Your task to perform on an android device: Open Yahoo.com Image 0: 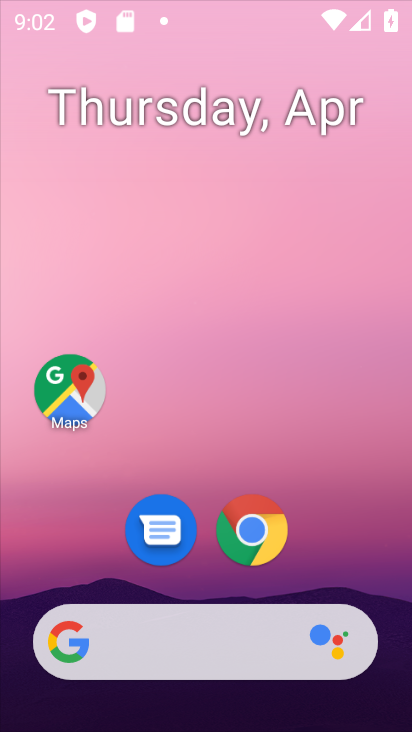
Step 0: drag from (358, 569) to (267, 91)
Your task to perform on an android device: Open Yahoo.com Image 1: 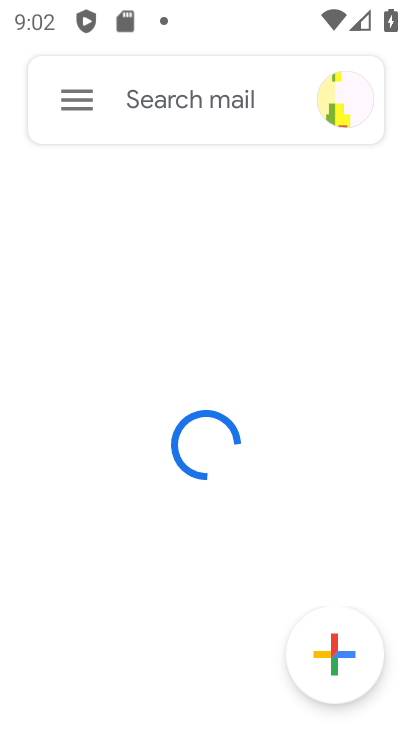
Step 1: press home button
Your task to perform on an android device: Open Yahoo.com Image 2: 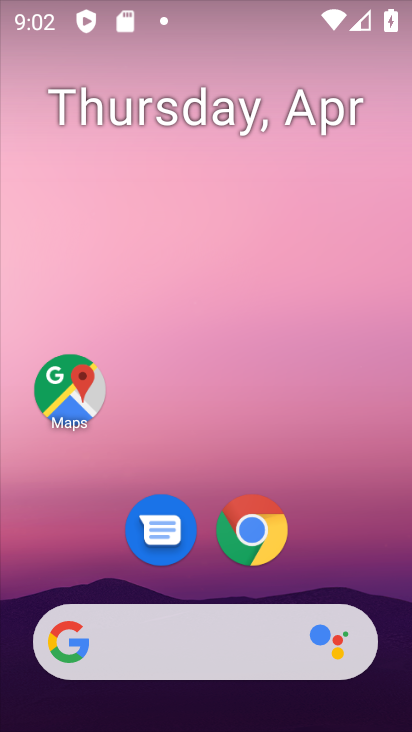
Step 2: drag from (374, 605) to (289, 71)
Your task to perform on an android device: Open Yahoo.com Image 3: 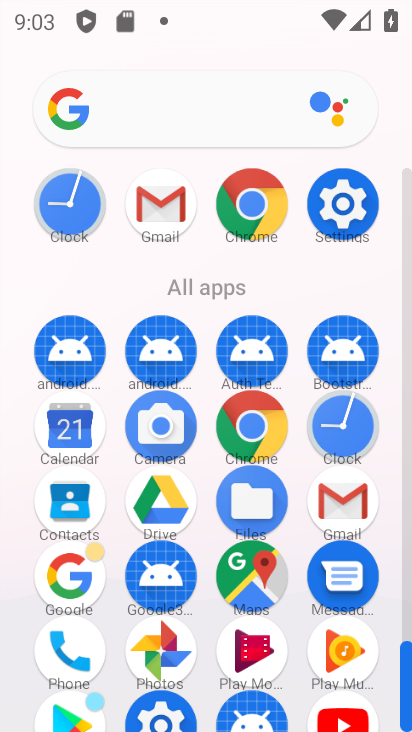
Step 3: click (247, 205)
Your task to perform on an android device: Open Yahoo.com Image 4: 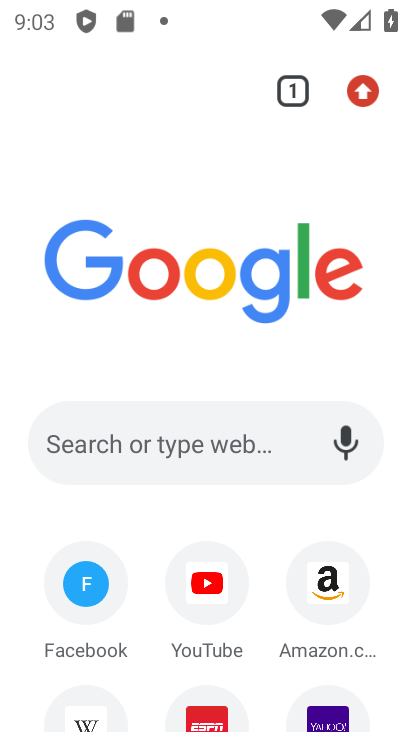
Step 4: click (326, 712)
Your task to perform on an android device: Open Yahoo.com Image 5: 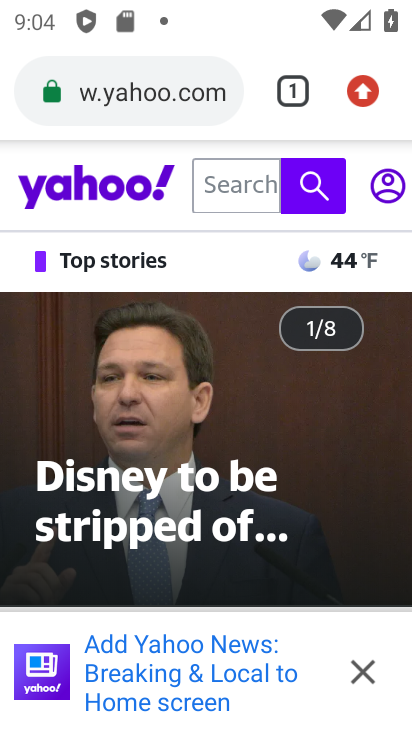
Step 5: task complete